Your task to perform on an android device: Open maps Image 0: 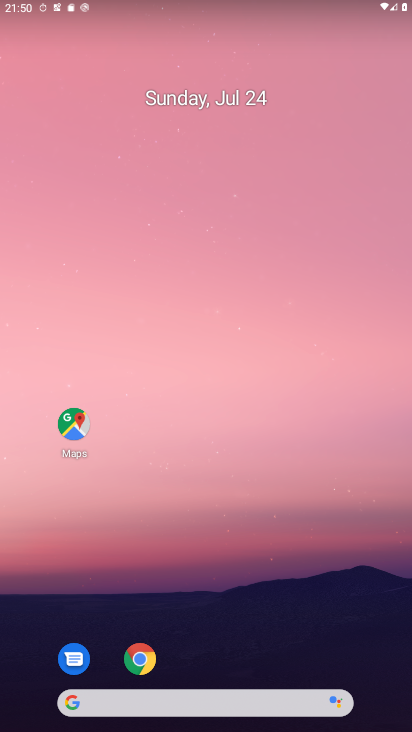
Step 0: drag from (225, 728) to (227, 77)
Your task to perform on an android device: Open maps Image 1: 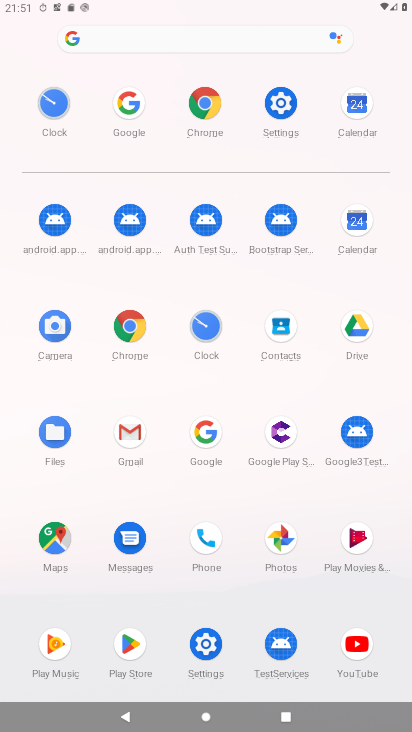
Step 1: click (53, 532)
Your task to perform on an android device: Open maps Image 2: 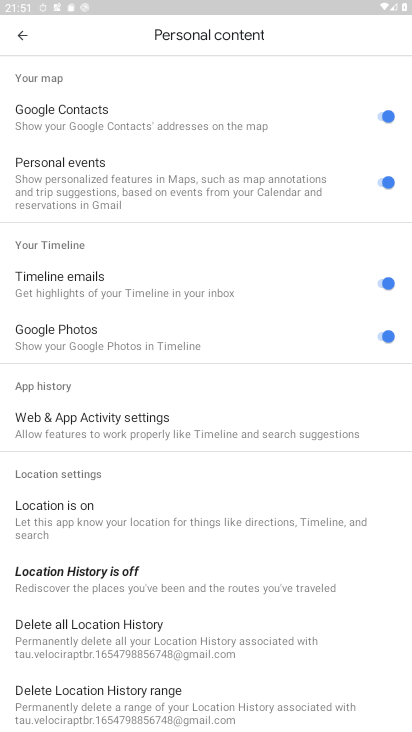
Step 2: click (23, 33)
Your task to perform on an android device: Open maps Image 3: 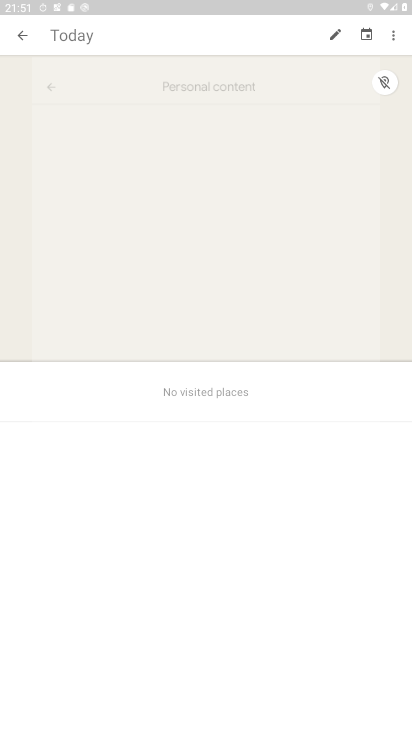
Step 3: click (23, 34)
Your task to perform on an android device: Open maps Image 4: 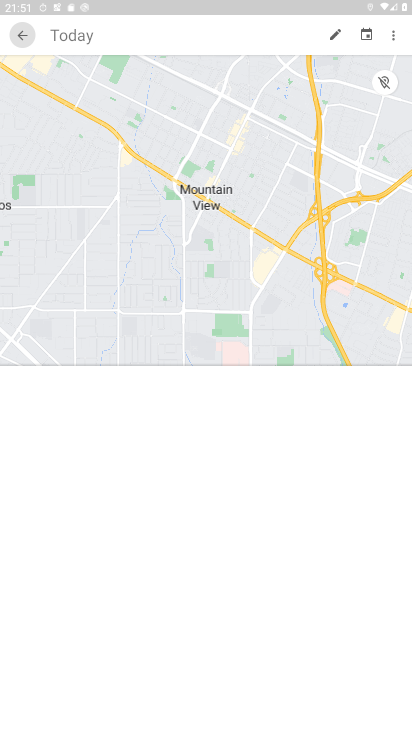
Step 4: task complete